Your task to perform on an android device: toggle notifications settings in the gmail app Image 0: 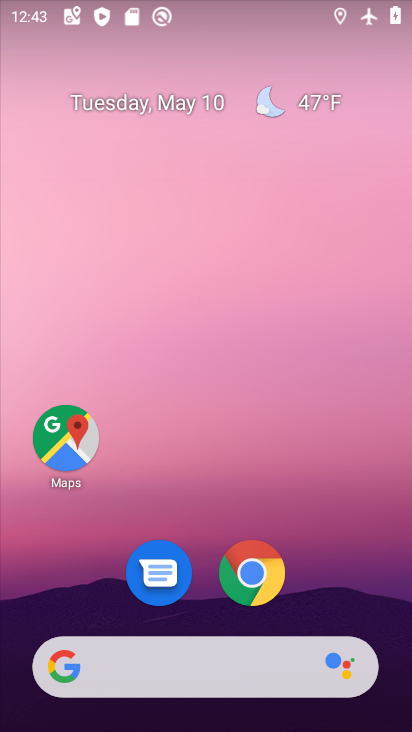
Step 0: click (254, 172)
Your task to perform on an android device: toggle notifications settings in the gmail app Image 1: 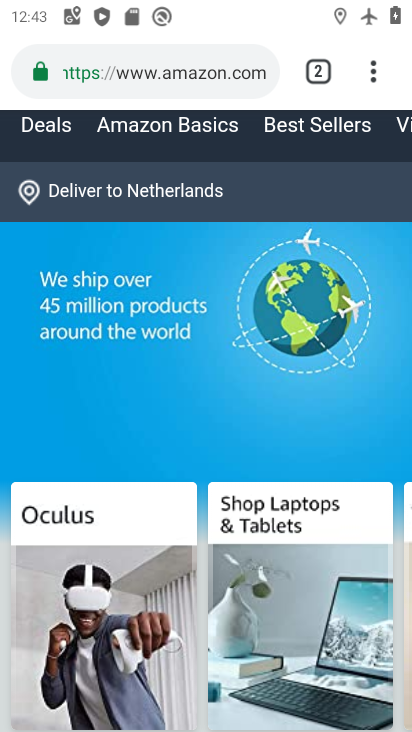
Step 1: drag from (192, 617) to (263, 210)
Your task to perform on an android device: toggle notifications settings in the gmail app Image 2: 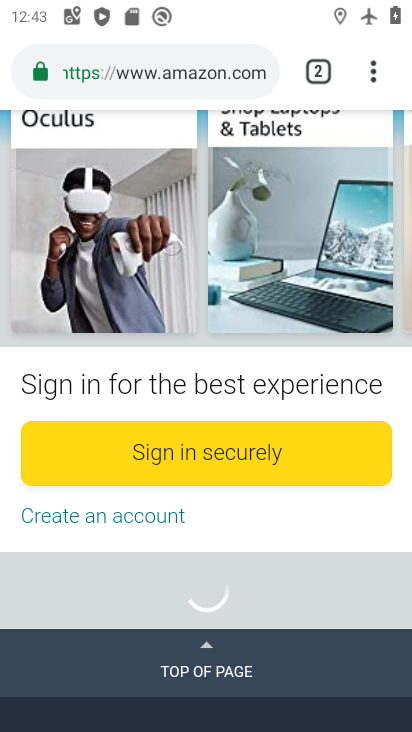
Step 2: press home button
Your task to perform on an android device: toggle notifications settings in the gmail app Image 3: 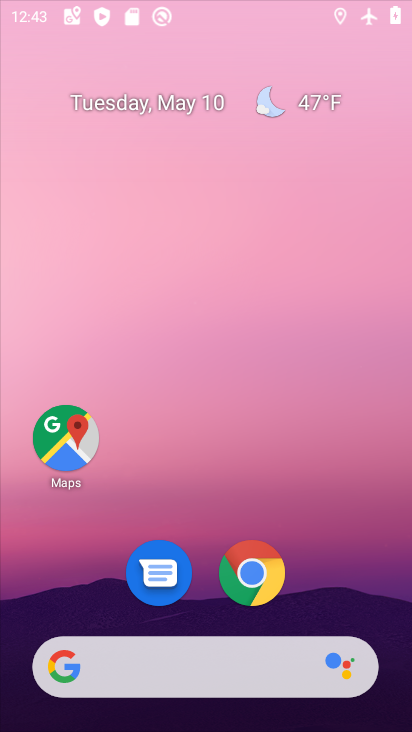
Step 3: drag from (156, 631) to (234, 135)
Your task to perform on an android device: toggle notifications settings in the gmail app Image 4: 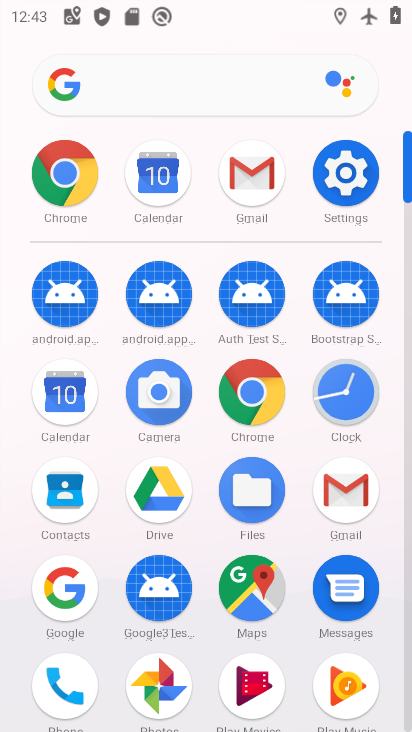
Step 4: drag from (201, 655) to (233, 246)
Your task to perform on an android device: toggle notifications settings in the gmail app Image 5: 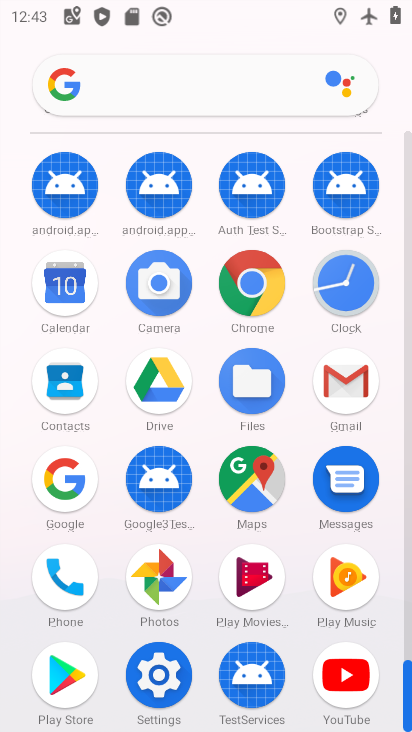
Step 5: click (332, 372)
Your task to perform on an android device: toggle notifications settings in the gmail app Image 6: 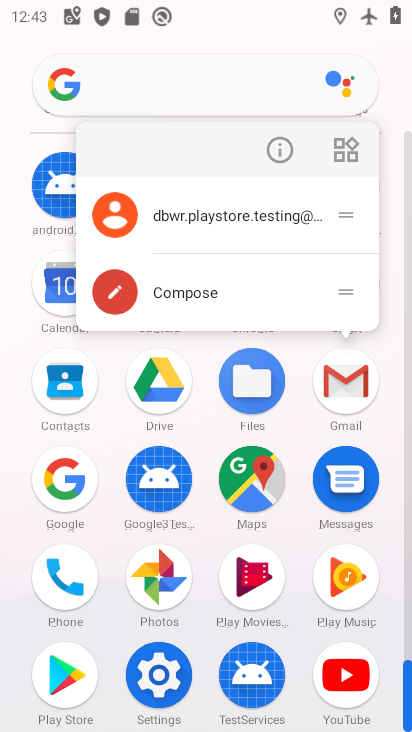
Step 6: click (278, 146)
Your task to perform on an android device: toggle notifications settings in the gmail app Image 7: 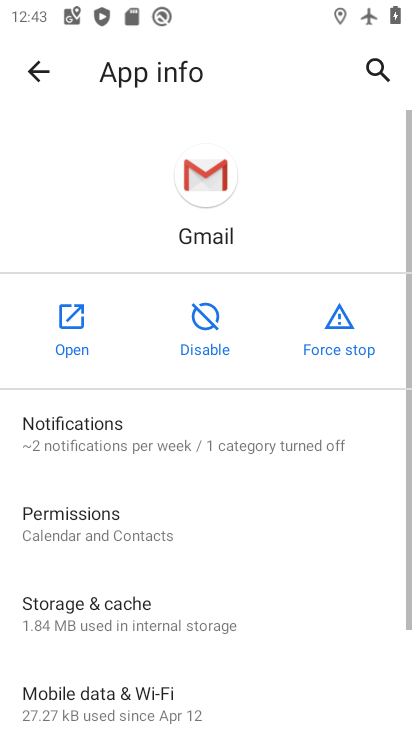
Step 7: click (67, 329)
Your task to perform on an android device: toggle notifications settings in the gmail app Image 8: 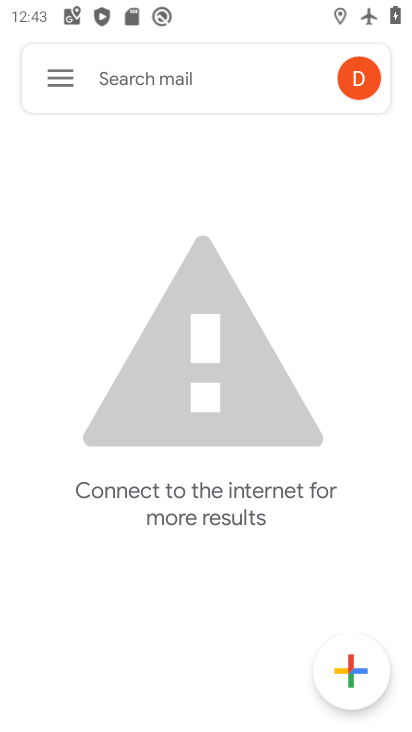
Step 8: drag from (203, 573) to (218, 308)
Your task to perform on an android device: toggle notifications settings in the gmail app Image 9: 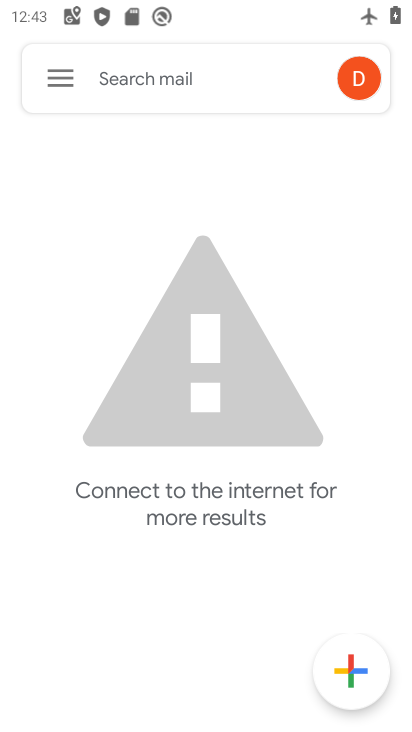
Step 9: drag from (200, 610) to (232, 341)
Your task to perform on an android device: toggle notifications settings in the gmail app Image 10: 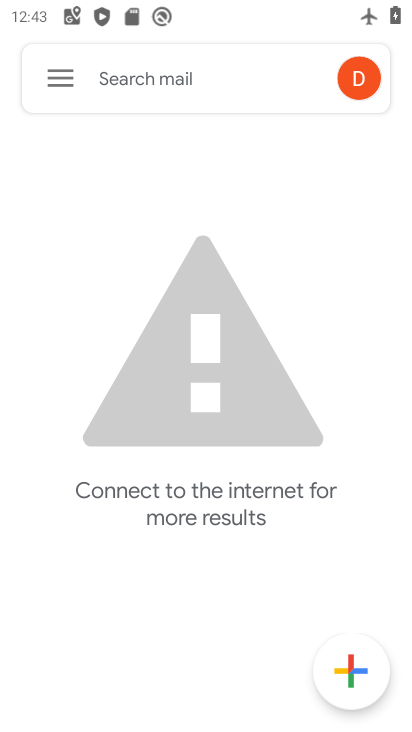
Step 10: drag from (231, 611) to (241, 270)
Your task to perform on an android device: toggle notifications settings in the gmail app Image 11: 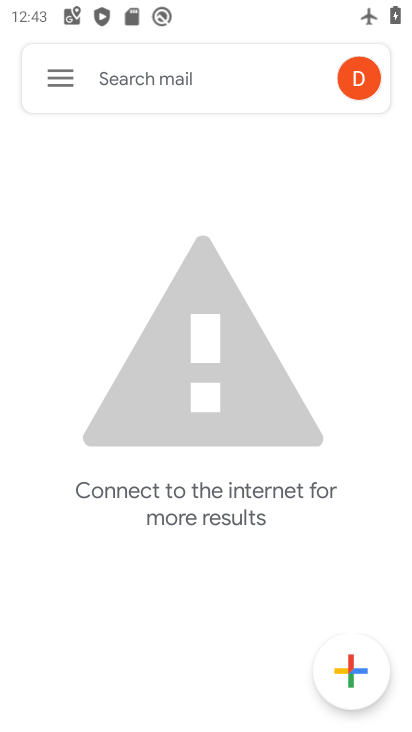
Step 11: drag from (234, 569) to (235, 284)
Your task to perform on an android device: toggle notifications settings in the gmail app Image 12: 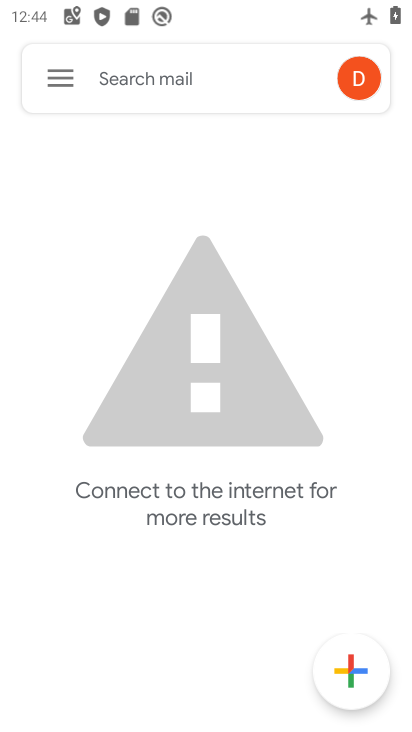
Step 12: drag from (157, 521) to (202, 207)
Your task to perform on an android device: toggle notifications settings in the gmail app Image 13: 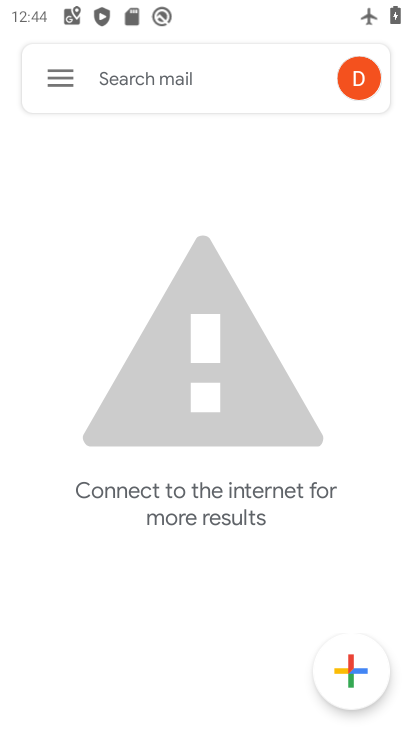
Step 13: drag from (197, 600) to (199, 363)
Your task to perform on an android device: toggle notifications settings in the gmail app Image 14: 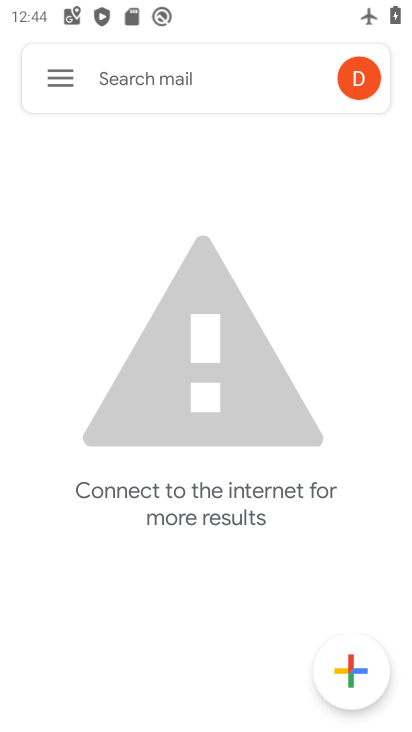
Step 14: click (38, 69)
Your task to perform on an android device: toggle notifications settings in the gmail app Image 15: 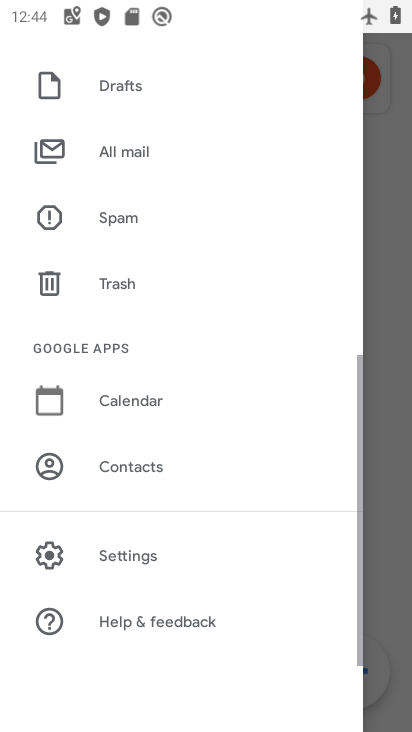
Step 15: click (137, 528)
Your task to perform on an android device: toggle notifications settings in the gmail app Image 16: 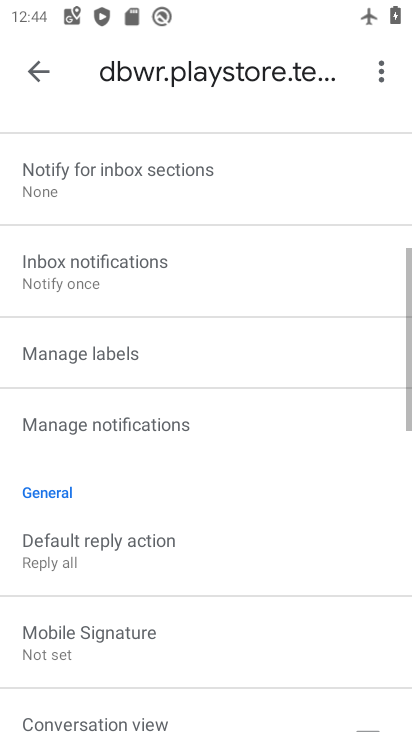
Step 16: click (136, 408)
Your task to perform on an android device: toggle notifications settings in the gmail app Image 17: 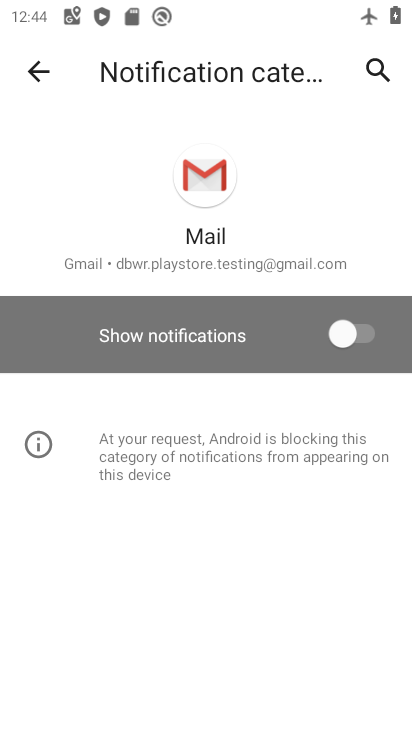
Step 17: click (305, 309)
Your task to perform on an android device: toggle notifications settings in the gmail app Image 18: 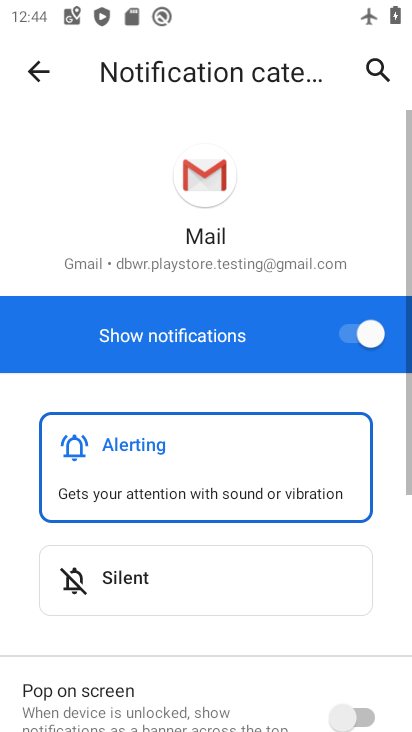
Step 18: task complete